Your task to perform on an android device: Open the stopwatch Image 0: 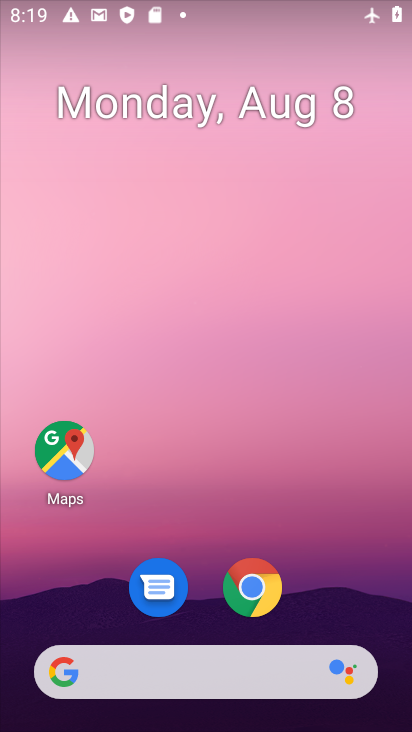
Step 0: drag from (173, 666) to (155, 169)
Your task to perform on an android device: Open the stopwatch Image 1: 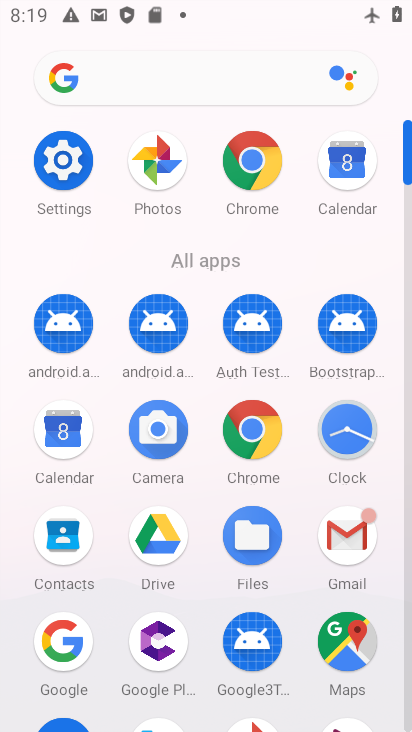
Step 1: click (359, 433)
Your task to perform on an android device: Open the stopwatch Image 2: 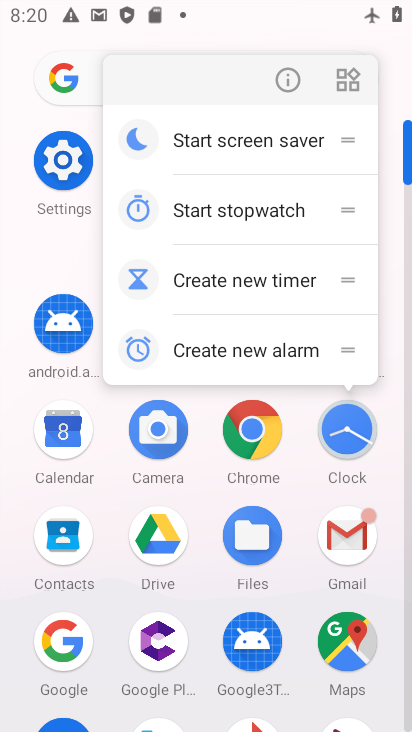
Step 2: click (346, 430)
Your task to perform on an android device: Open the stopwatch Image 3: 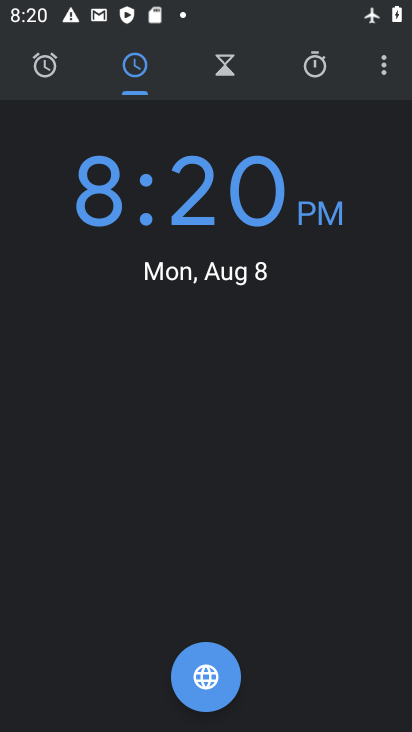
Step 3: click (322, 76)
Your task to perform on an android device: Open the stopwatch Image 4: 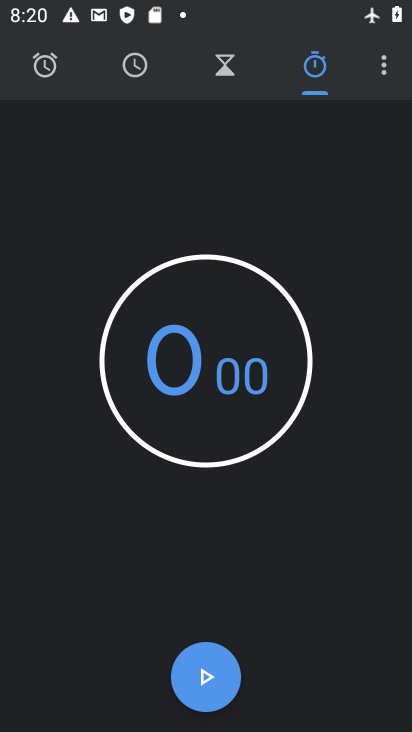
Step 4: click (199, 663)
Your task to perform on an android device: Open the stopwatch Image 5: 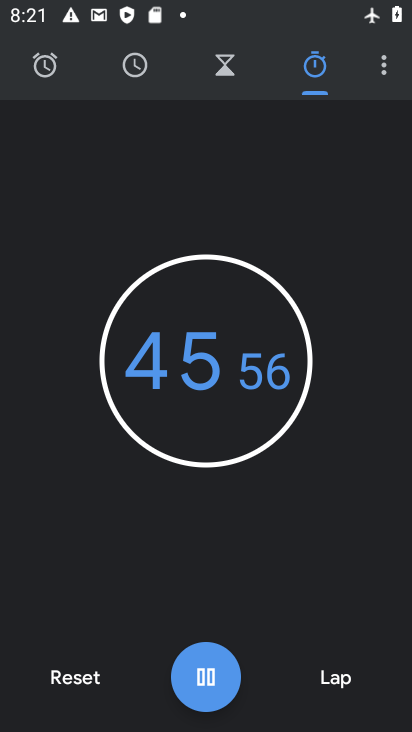
Step 5: click (64, 676)
Your task to perform on an android device: Open the stopwatch Image 6: 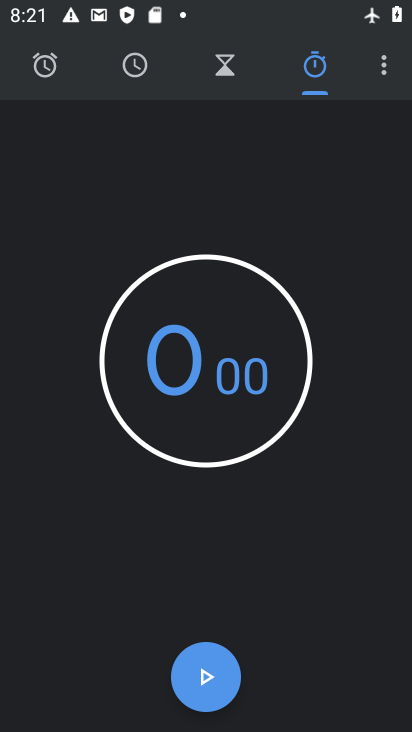
Step 6: task complete